Your task to perform on an android device: Open the stopwatch Image 0: 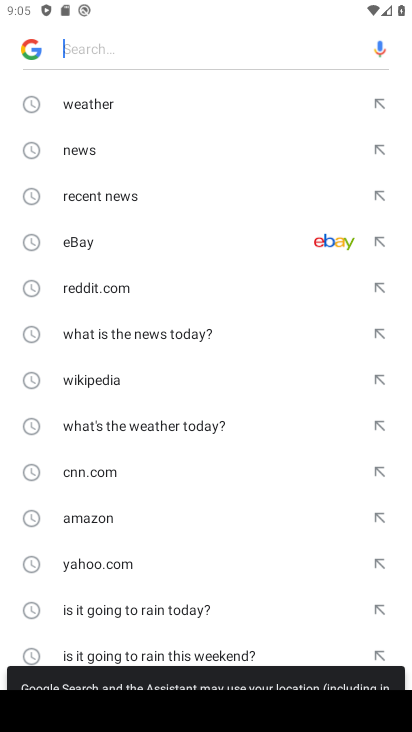
Step 0: press home button
Your task to perform on an android device: Open the stopwatch Image 1: 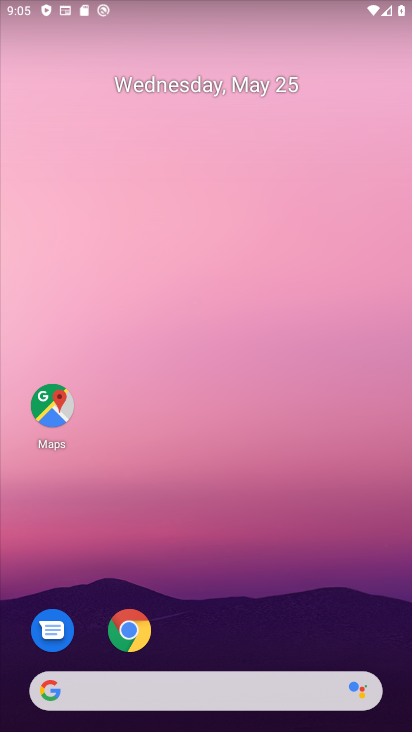
Step 1: drag from (285, 642) to (285, 47)
Your task to perform on an android device: Open the stopwatch Image 2: 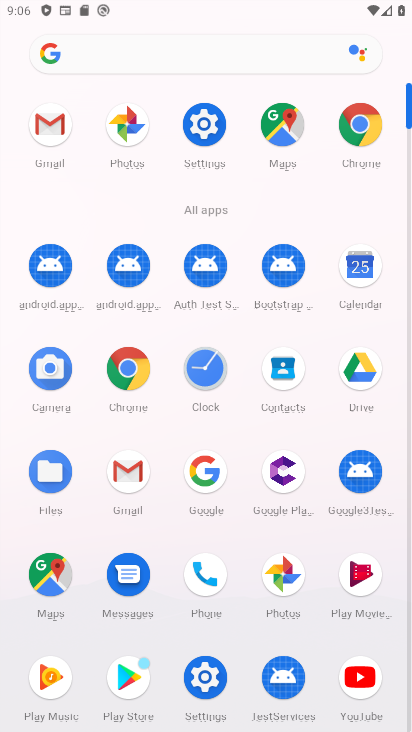
Step 2: click (197, 367)
Your task to perform on an android device: Open the stopwatch Image 3: 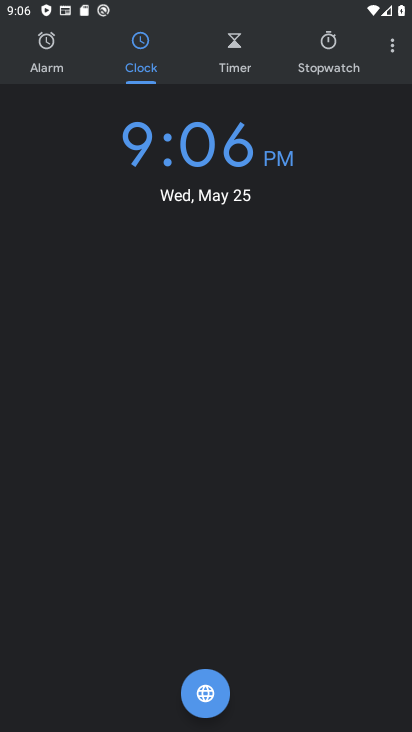
Step 3: click (305, 65)
Your task to perform on an android device: Open the stopwatch Image 4: 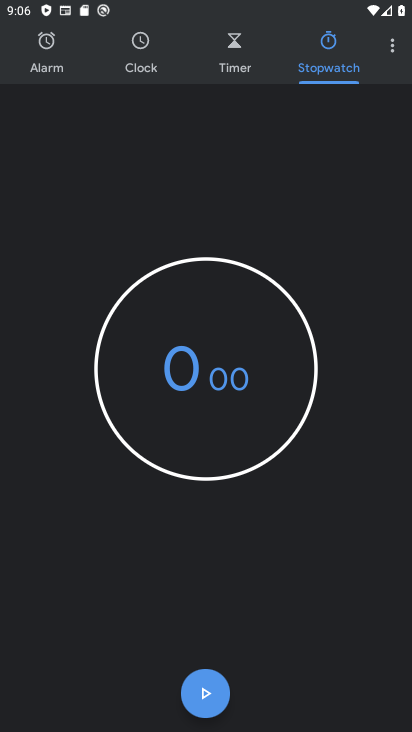
Step 4: task complete